Your task to perform on an android device: change the clock style Image 0: 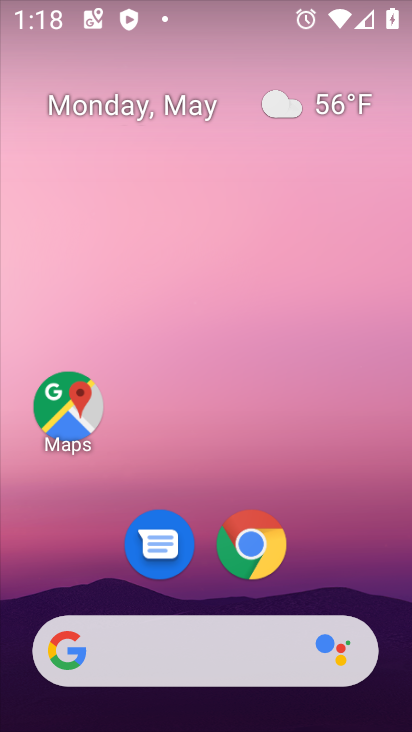
Step 0: drag from (398, 634) to (389, 134)
Your task to perform on an android device: change the clock style Image 1: 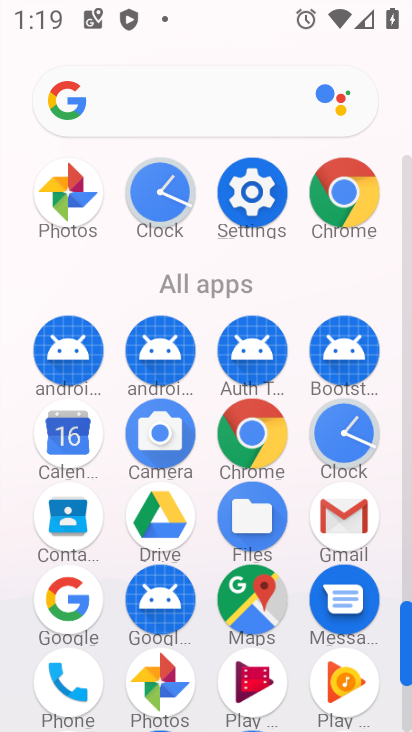
Step 1: click (340, 433)
Your task to perform on an android device: change the clock style Image 2: 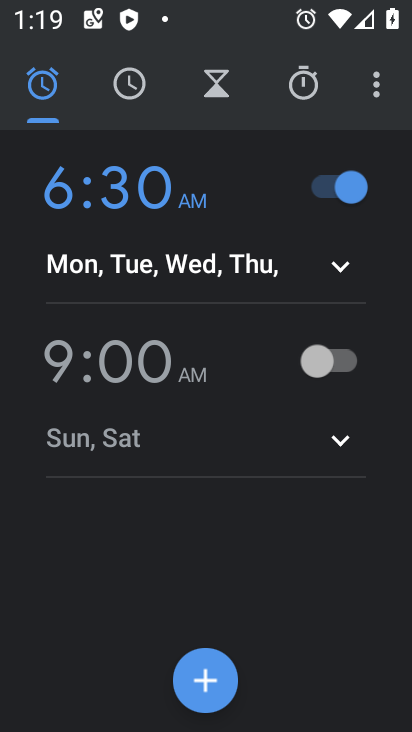
Step 2: click (373, 93)
Your task to perform on an android device: change the clock style Image 3: 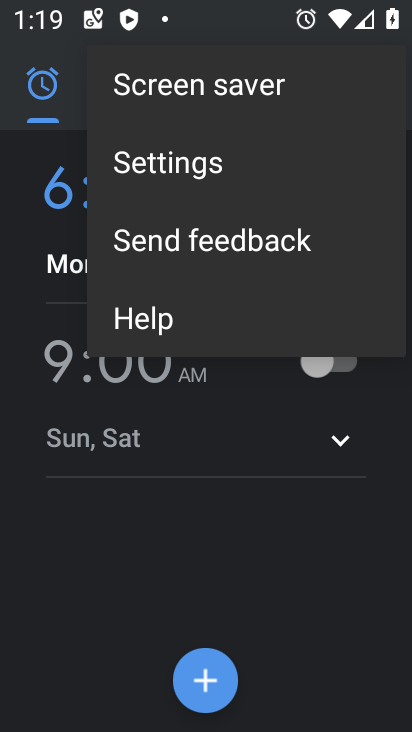
Step 3: click (144, 176)
Your task to perform on an android device: change the clock style Image 4: 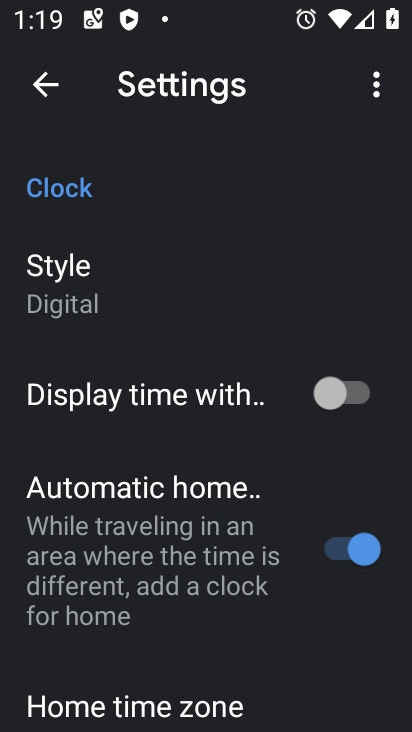
Step 4: click (95, 296)
Your task to perform on an android device: change the clock style Image 5: 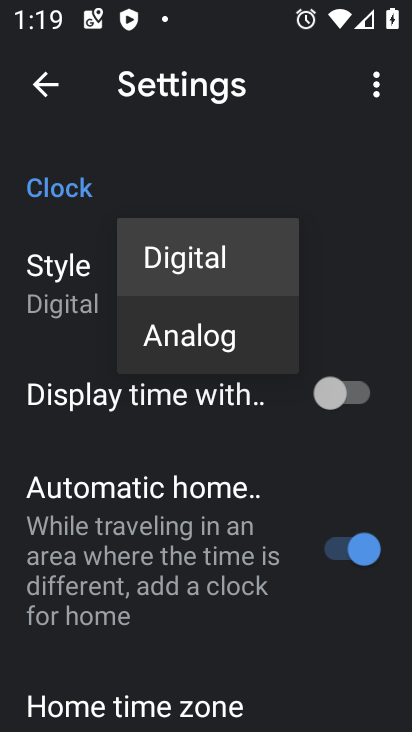
Step 5: click (181, 350)
Your task to perform on an android device: change the clock style Image 6: 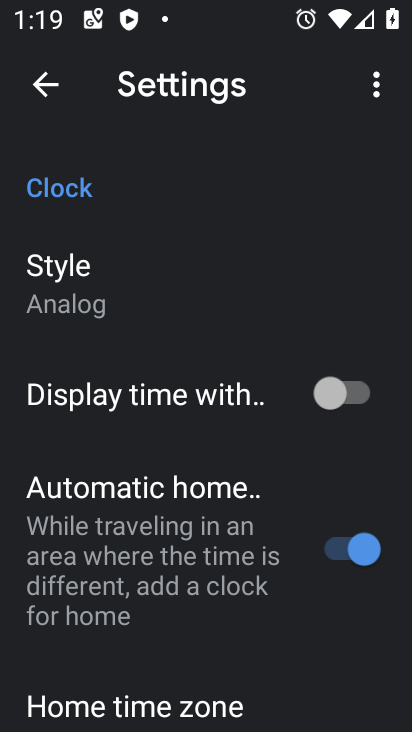
Step 6: task complete